Your task to perform on an android device: change keyboard looks Image 0: 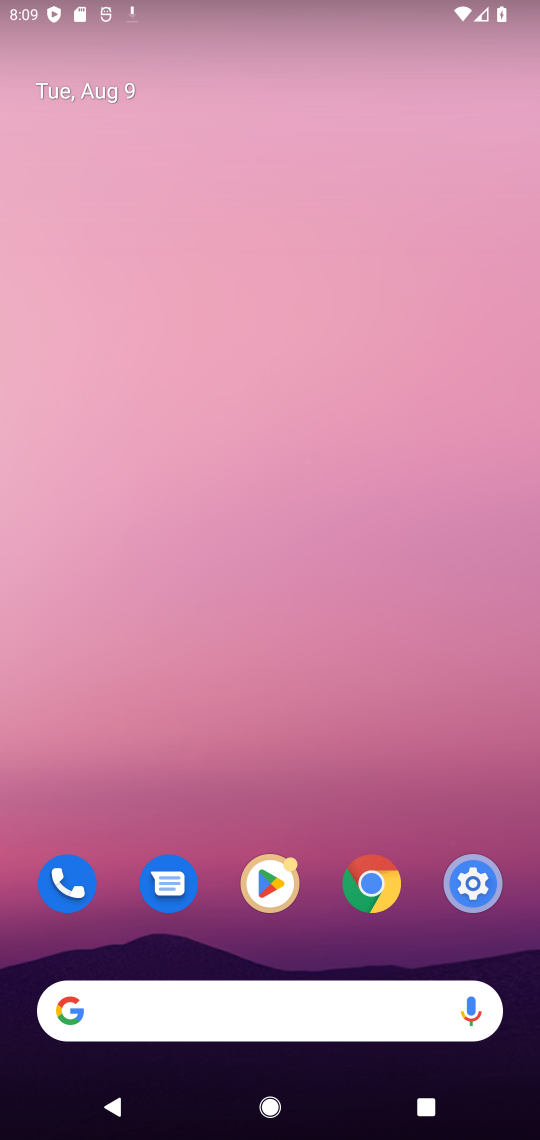
Step 0: drag from (352, 394) to (297, 1)
Your task to perform on an android device: change keyboard looks Image 1: 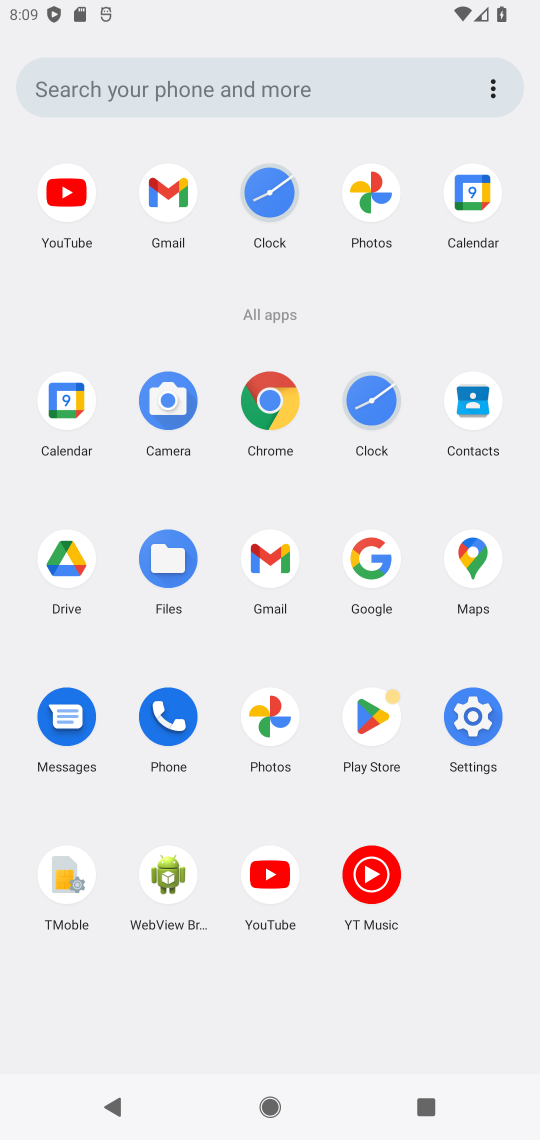
Step 1: click (472, 716)
Your task to perform on an android device: change keyboard looks Image 2: 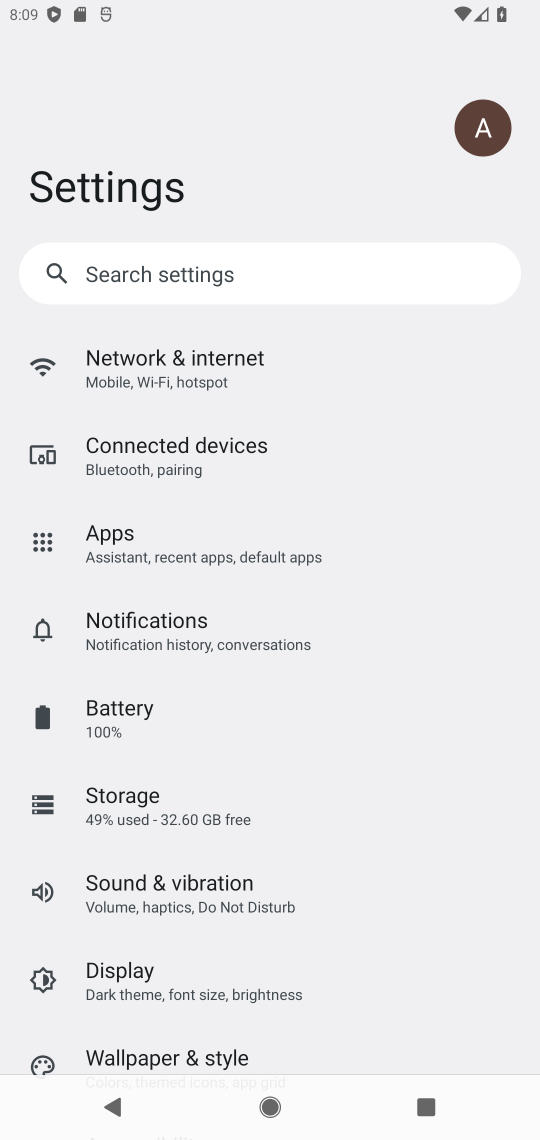
Step 2: drag from (361, 965) to (445, 279)
Your task to perform on an android device: change keyboard looks Image 3: 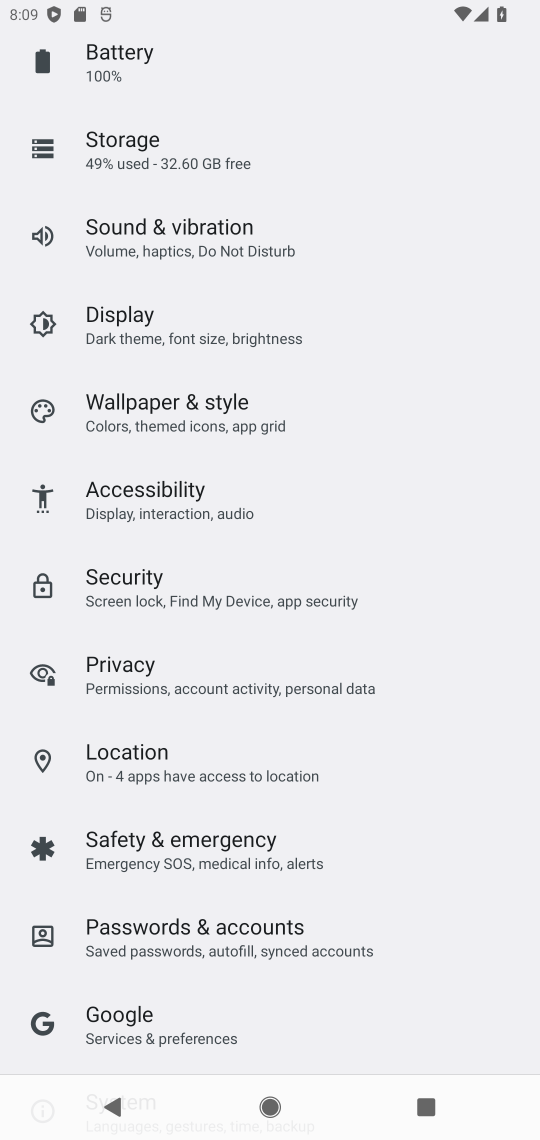
Step 3: click (235, 855)
Your task to perform on an android device: change keyboard looks Image 4: 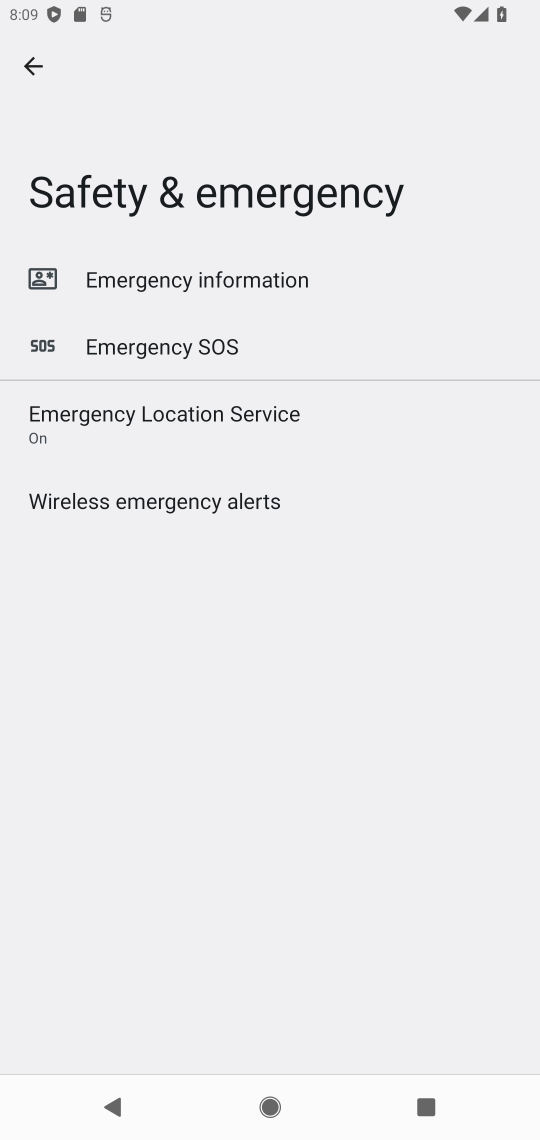
Step 4: click (48, 65)
Your task to perform on an android device: change keyboard looks Image 5: 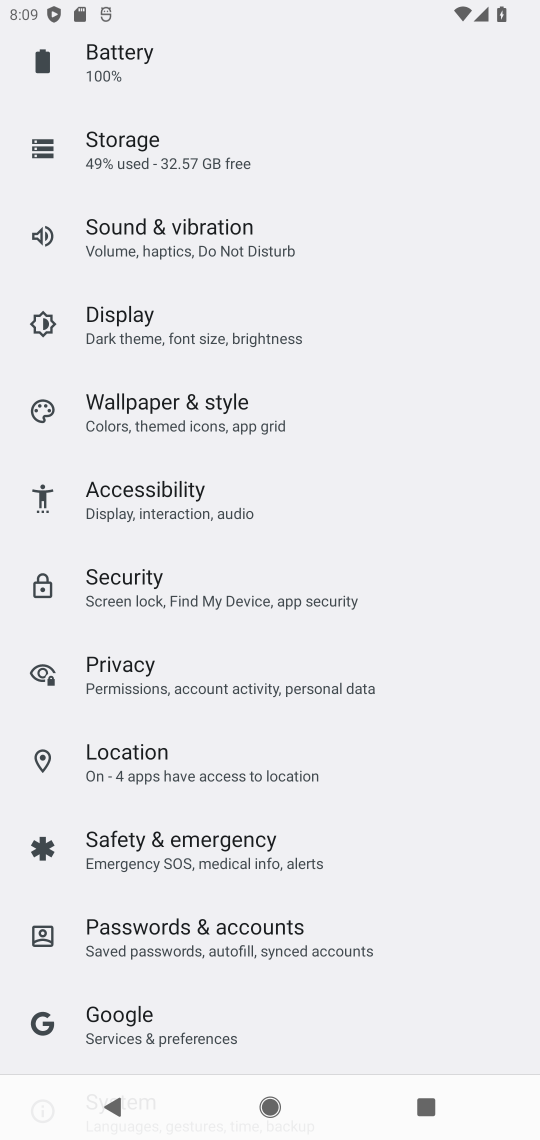
Step 5: drag from (199, 1002) to (273, 613)
Your task to perform on an android device: change keyboard looks Image 6: 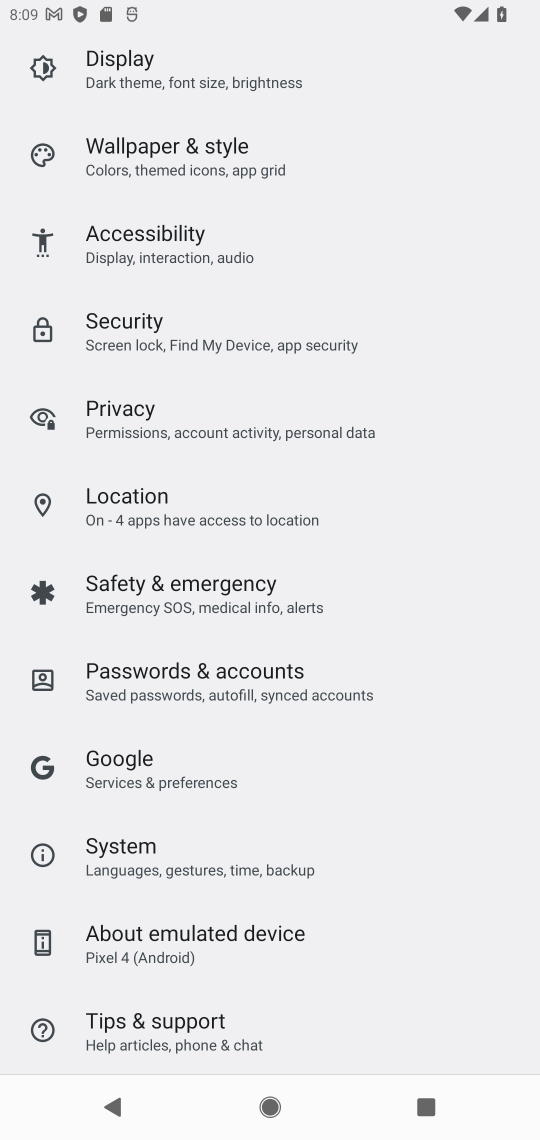
Step 6: click (141, 853)
Your task to perform on an android device: change keyboard looks Image 7: 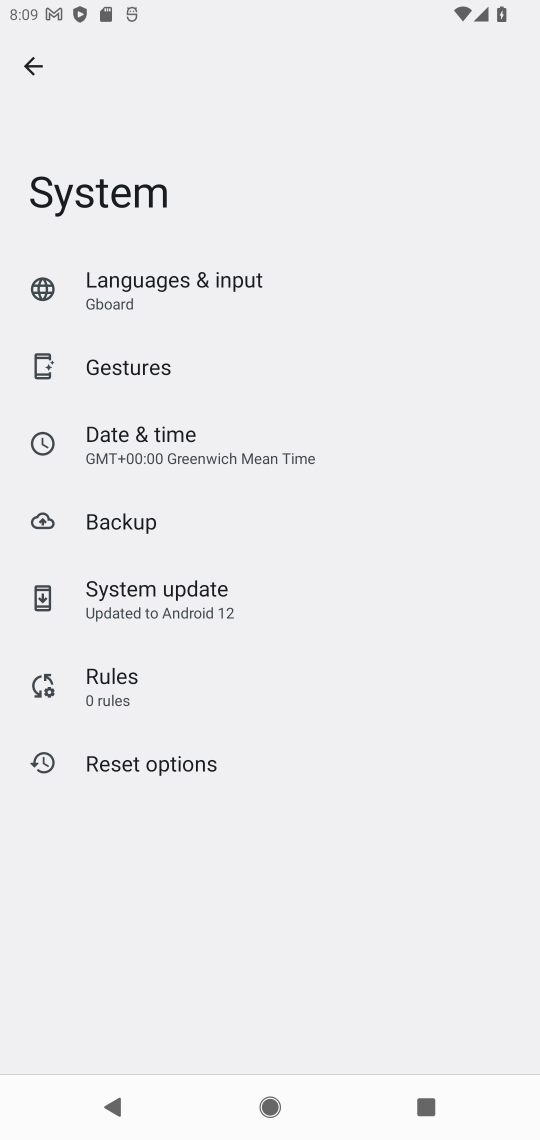
Step 7: click (143, 282)
Your task to perform on an android device: change keyboard looks Image 8: 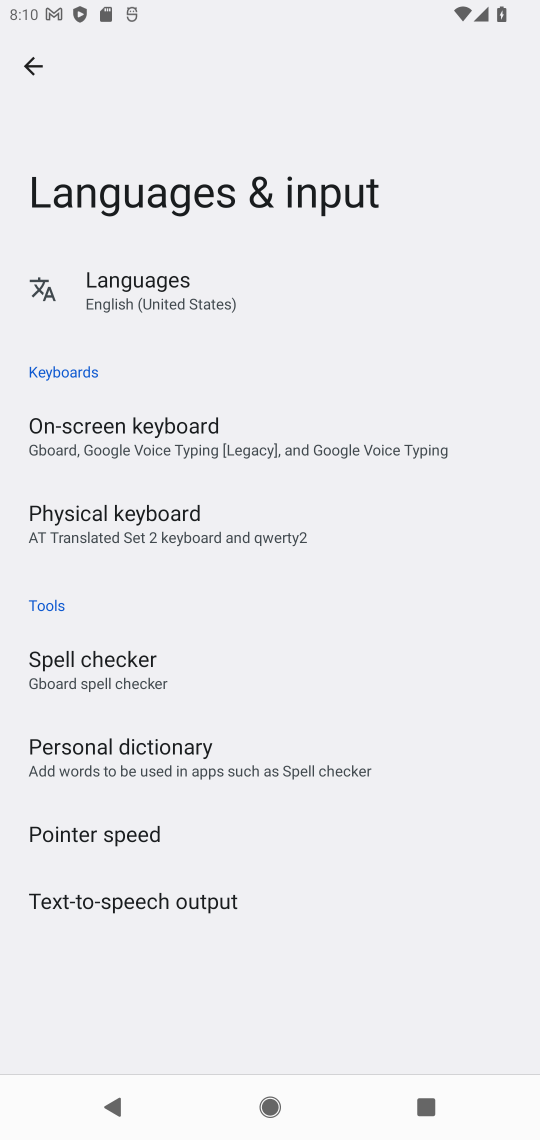
Step 8: click (191, 304)
Your task to perform on an android device: change keyboard looks Image 9: 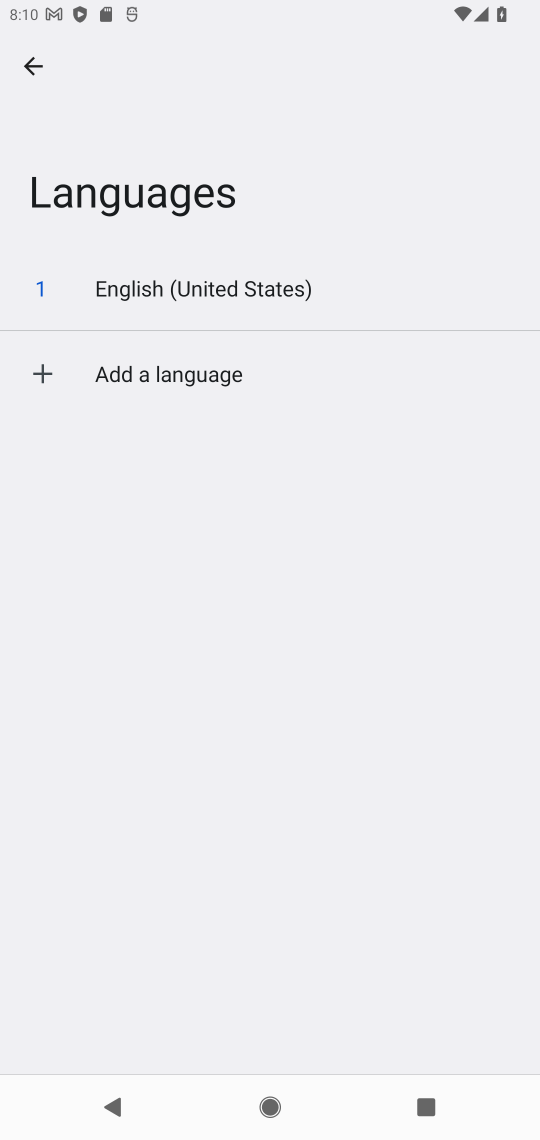
Step 9: click (39, 64)
Your task to perform on an android device: change keyboard looks Image 10: 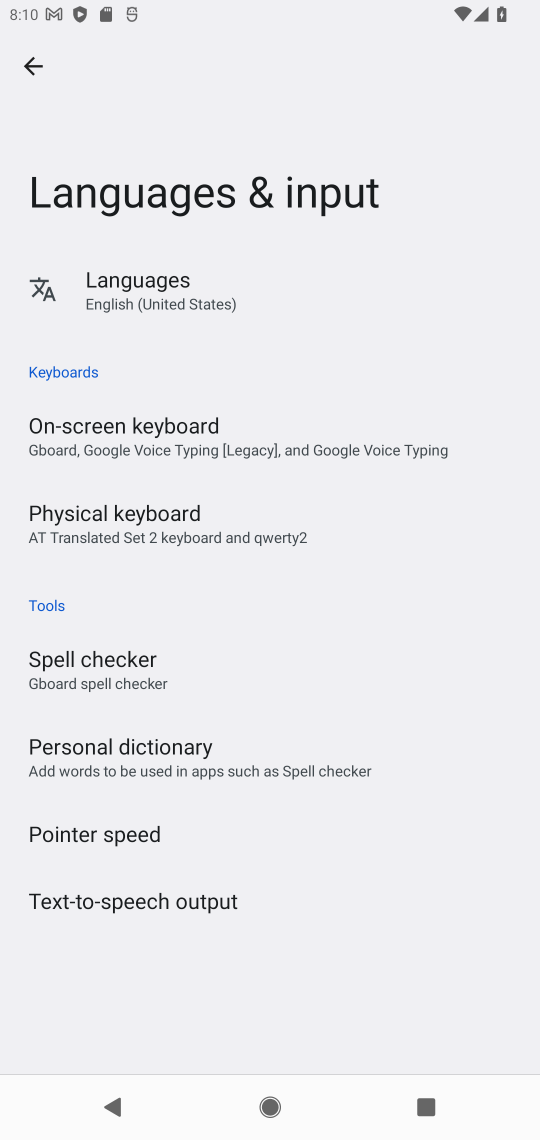
Step 10: click (166, 439)
Your task to perform on an android device: change keyboard looks Image 11: 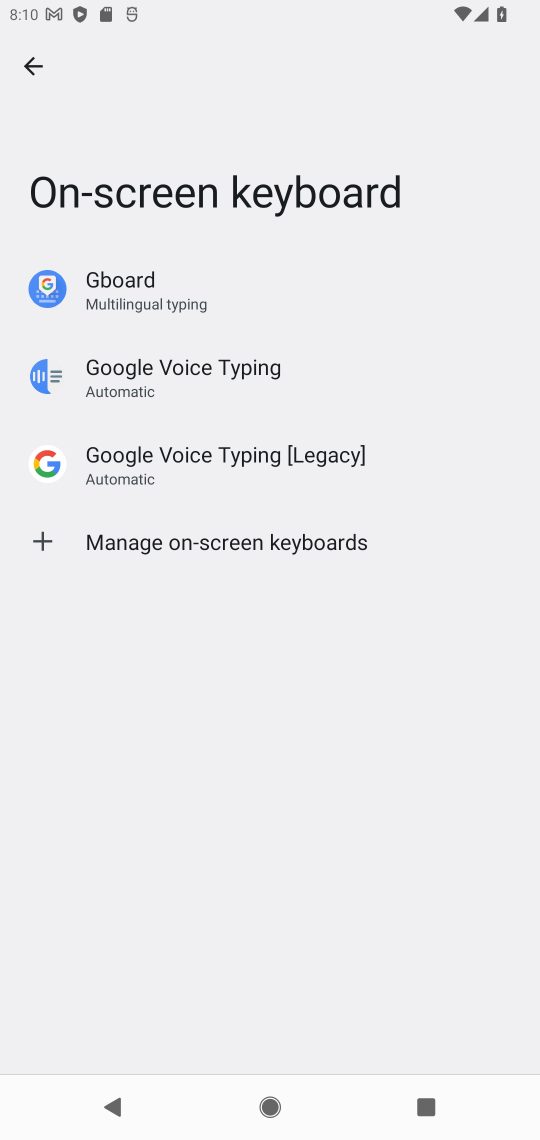
Step 11: click (163, 291)
Your task to perform on an android device: change keyboard looks Image 12: 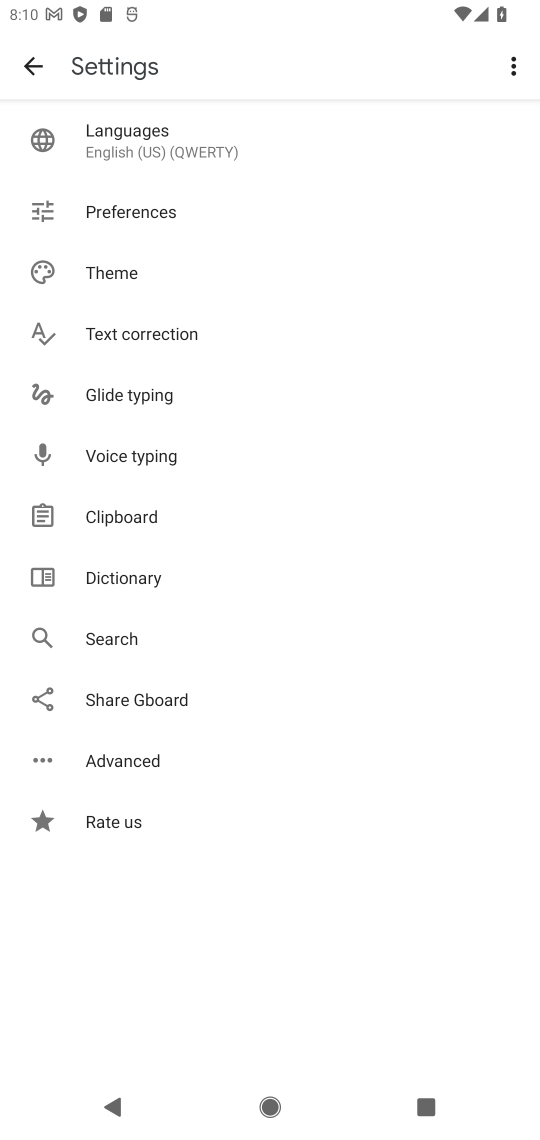
Step 12: click (145, 278)
Your task to perform on an android device: change keyboard looks Image 13: 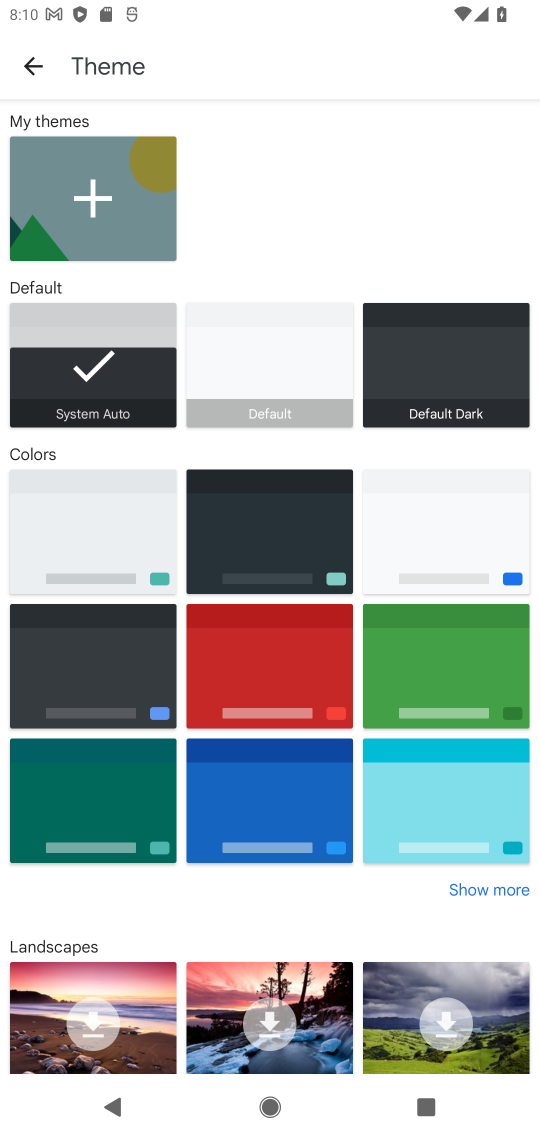
Step 13: click (335, 349)
Your task to perform on an android device: change keyboard looks Image 14: 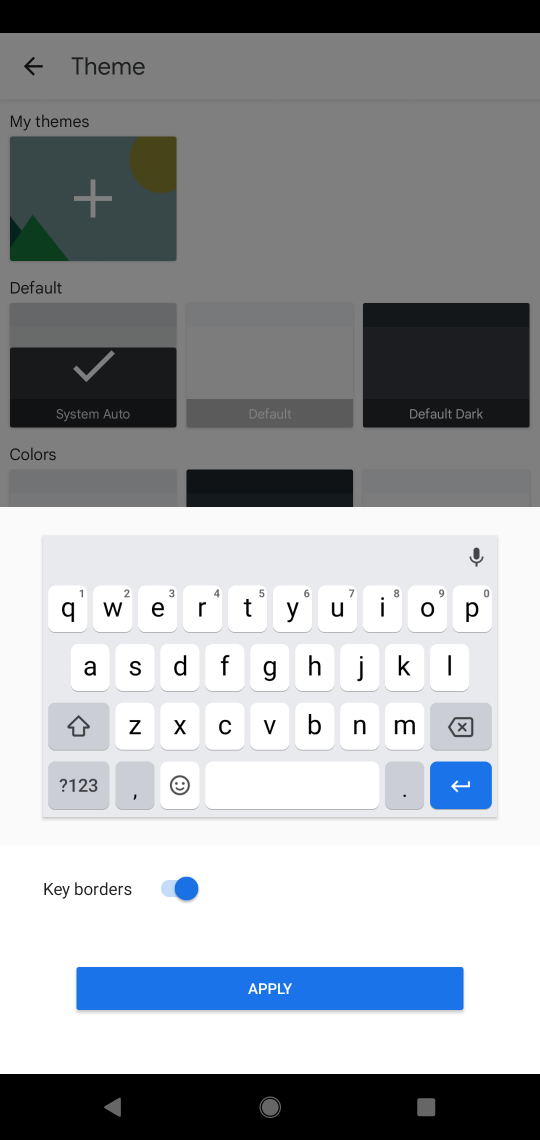
Step 14: click (348, 986)
Your task to perform on an android device: change keyboard looks Image 15: 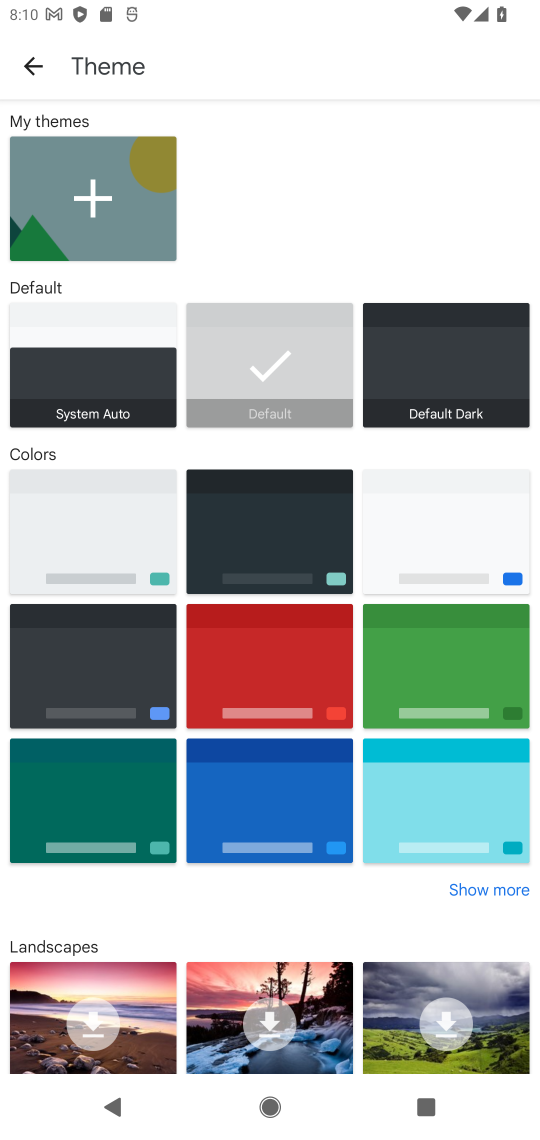
Step 15: task complete